Your task to perform on an android device: see creations saved in the google photos Image 0: 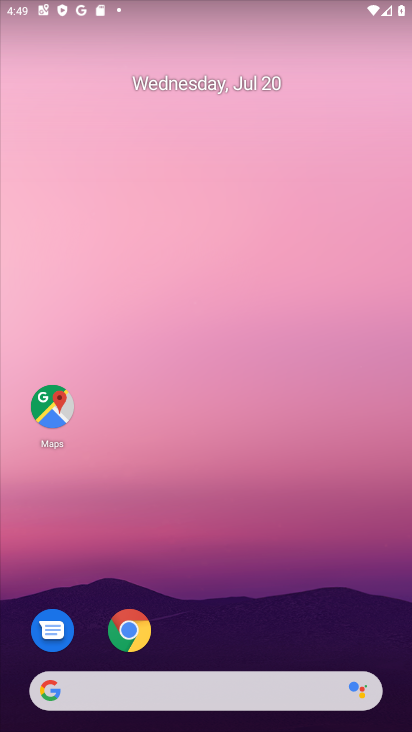
Step 0: drag from (215, 694) to (401, 184)
Your task to perform on an android device: see creations saved in the google photos Image 1: 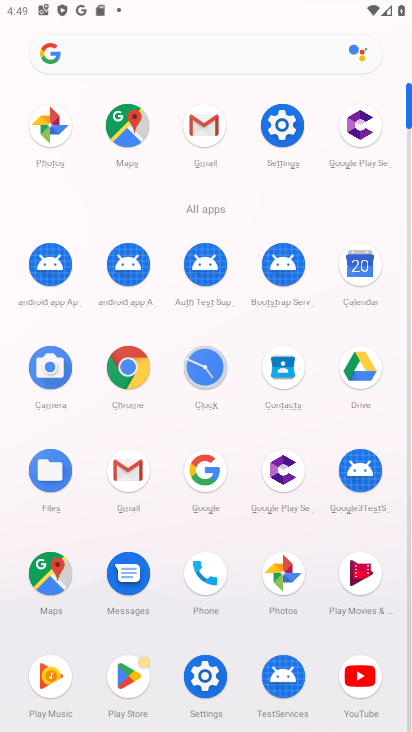
Step 1: click (284, 571)
Your task to perform on an android device: see creations saved in the google photos Image 2: 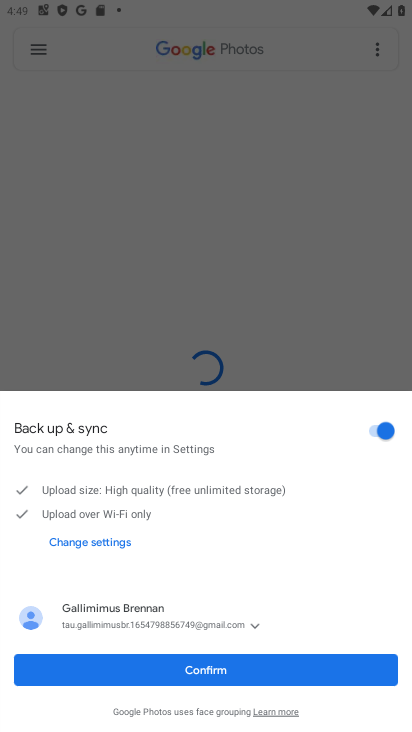
Step 2: click (229, 664)
Your task to perform on an android device: see creations saved in the google photos Image 3: 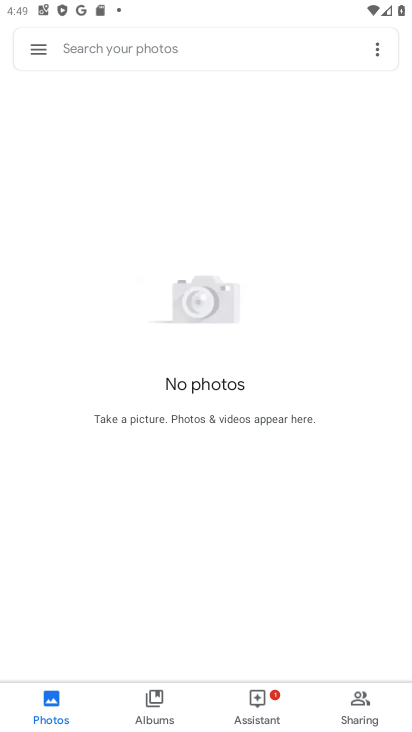
Step 3: click (159, 697)
Your task to perform on an android device: see creations saved in the google photos Image 4: 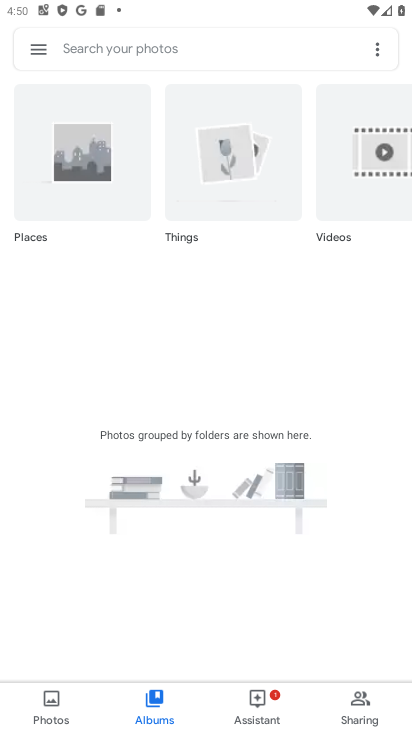
Step 4: click (39, 50)
Your task to perform on an android device: see creations saved in the google photos Image 5: 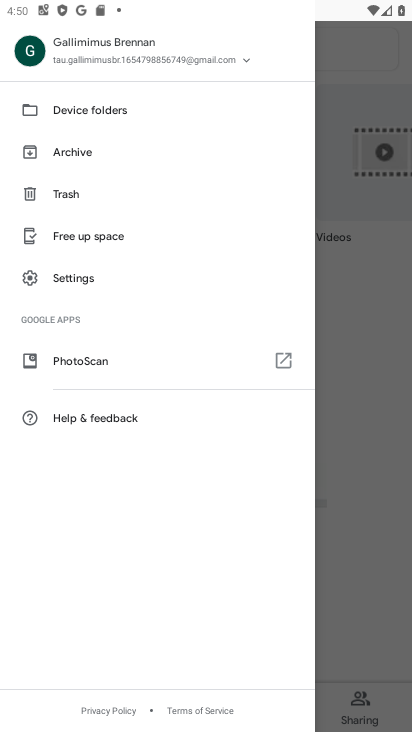
Step 5: click (364, 76)
Your task to perform on an android device: see creations saved in the google photos Image 6: 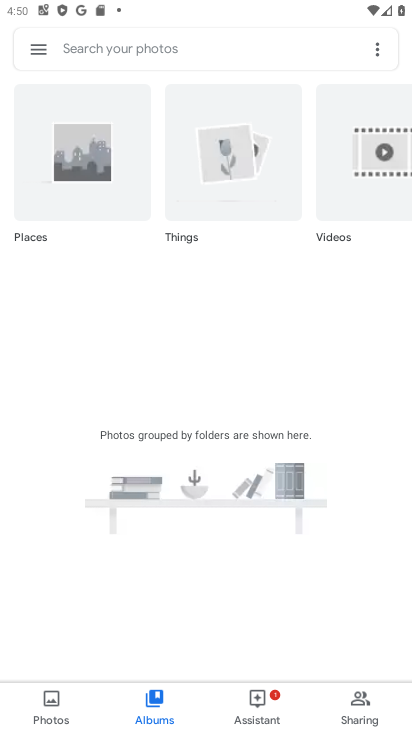
Step 6: click (192, 51)
Your task to perform on an android device: see creations saved in the google photos Image 7: 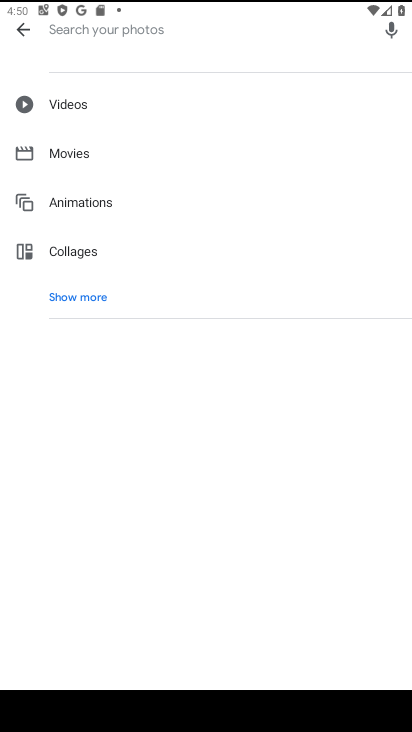
Step 7: click (85, 295)
Your task to perform on an android device: see creations saved in the google photos Image 8: 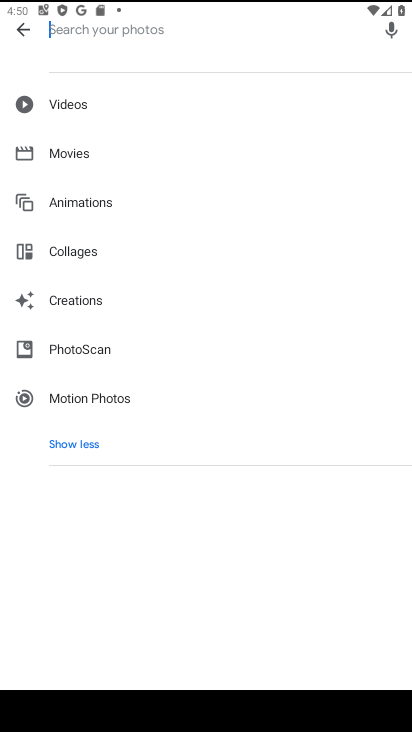
Step 8: click (88, 301)
Your task to perform on an android device: see creations saved in the google photos Image 9: 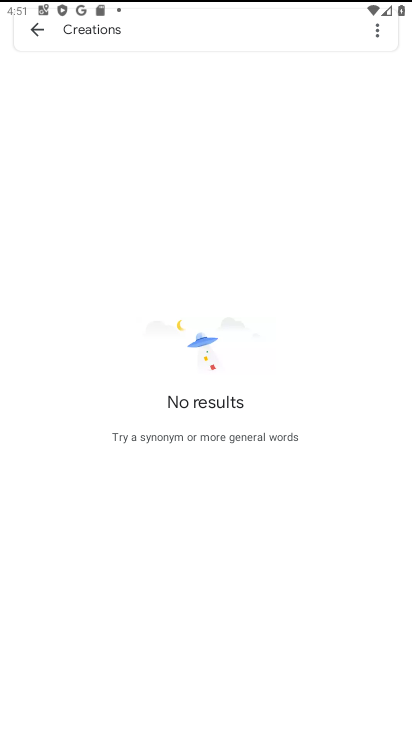
Step 9: task complete